Your task to perform on an android device: Clear the cart on walmart.com. Image 0: 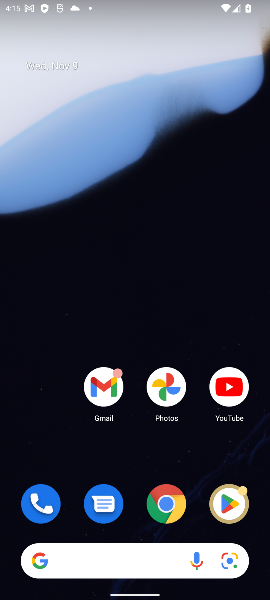
Step 0: click (103, 567)
Your task to perform on an android device: Clear the cart on walmart.com. Image 1: 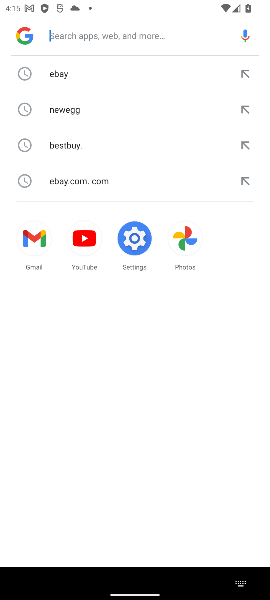
Step 1: type " walmart.com."
Your task to perform on an android device: Clear the cart on walmart.com. Image 2: 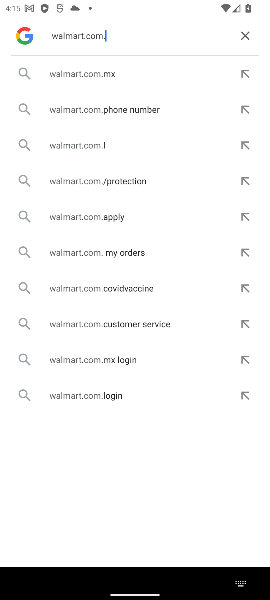
Step 2: click (84, 145)
Your task to perform on an android device: Clear the cart on walmart.com. Image 3: 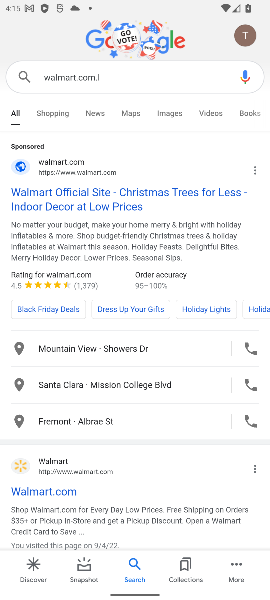
Step 3: click (45, 490)
Your task to perform on an android device: Clear the cart on walmart.com. Image 4: 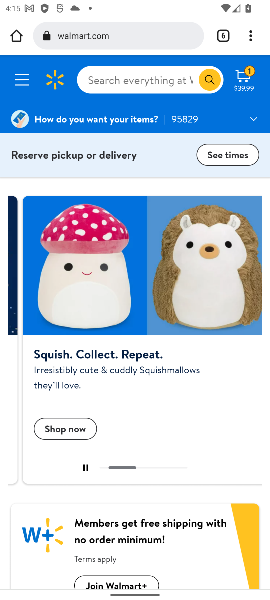
Step 4: click (242, 79)
Your task to perform on an android device: Clear the cart on walmart.com. Image 5: 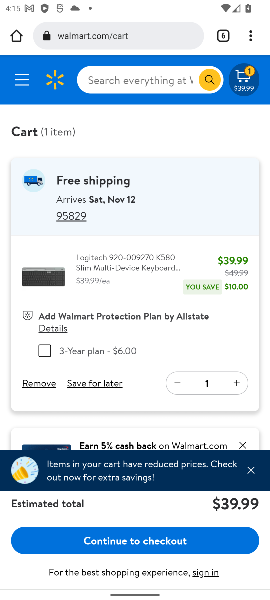
Step 5: click (39, 381)
Your task to perform on an android device: Clear the cart on walmart.com. Image 6: 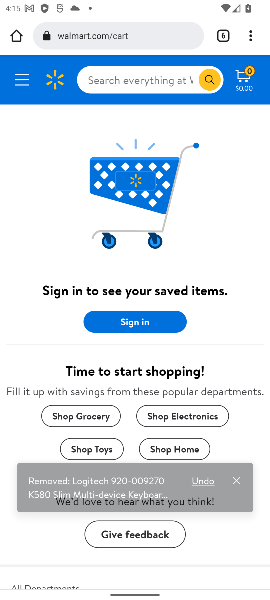
Step 6: task complete